Your task to perform on an android device: read, delete, or share a saved page in the chrome app Image 0: 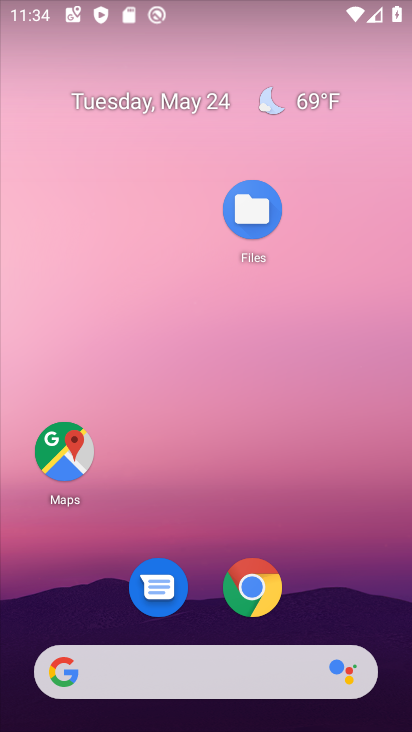
Step 0: click (270, 575)
Your task to perform on an android device: read, delete, or share a saved page in the chrome app Image 1: 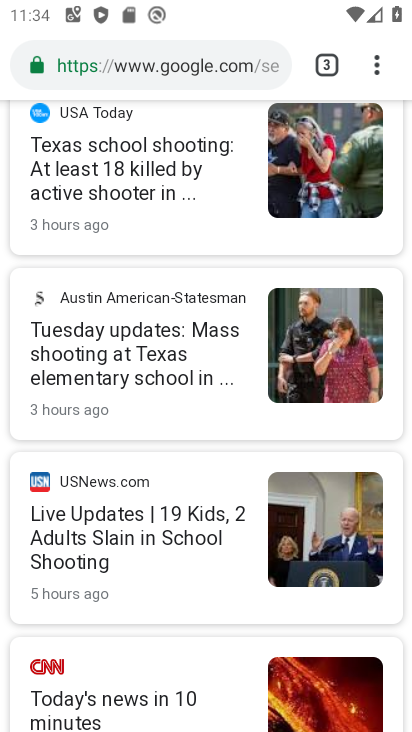
Step 1: click (383, 67)
Your task to perform on an android device: read, delete, or share a saved page in the chrome app Image 2: 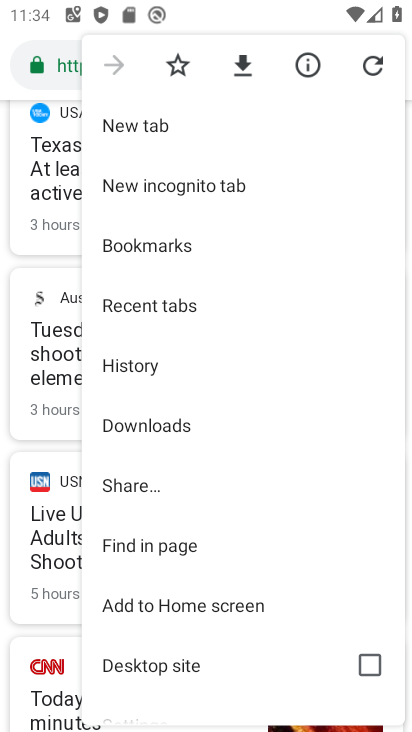
Step 2: click (147, 249)
Your task to perform on an android device: read, delete, or share a saved page in the chrome app Image 3: 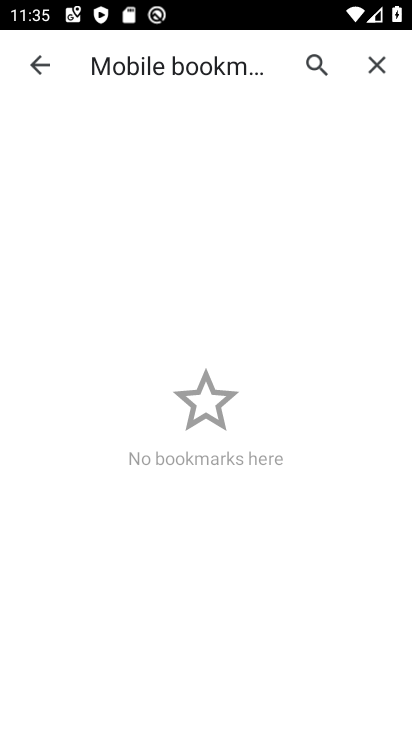
Step 3: click (324, 377)
Your task to perform on an android device: read, delete, or share a saved page in the chrome app Image 4: 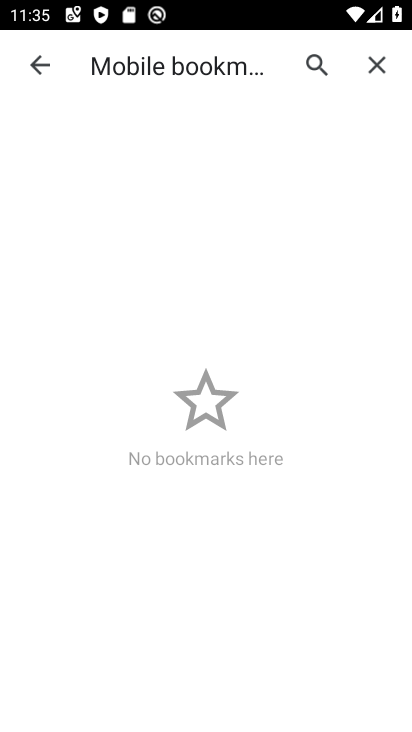
Step 4: task complete